Your task to perform on an android device: When is my next appointment? Image 0: 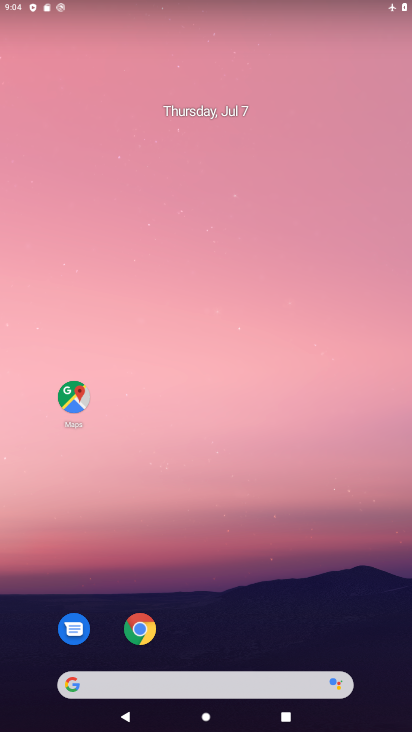
Step 0: drag from (273, 584) to (198, 114)
Your task to perform on an android device: When is my next appointment? Image 1: 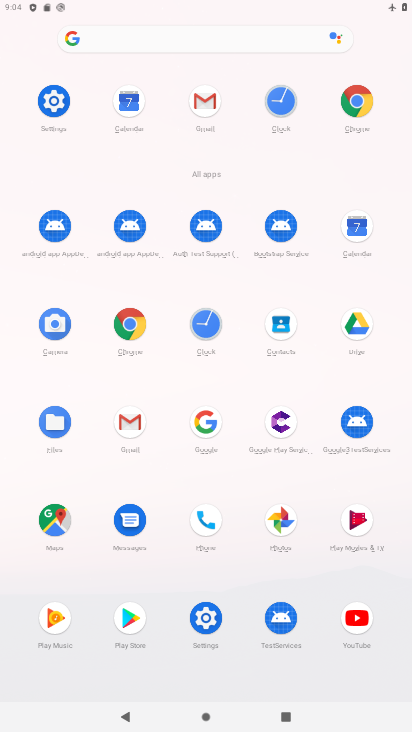
Step 1: click (126, 104)
Your task to perform on an android device: When is my next appointment? Image 2: 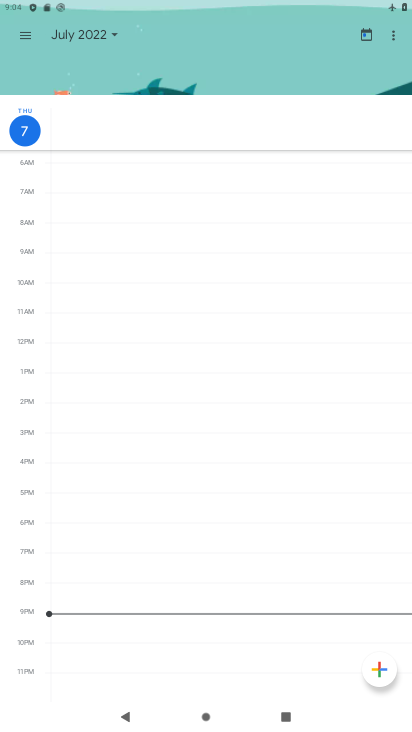
Step 2: task complete